Your task to perform on an android device: Go to Amazon Image 0: 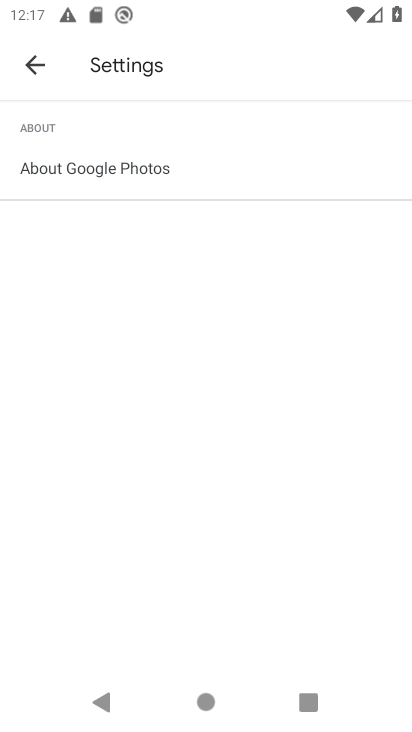
Step 0: press home button
Your task to perform on an android device: Go to Amazon Image 1: 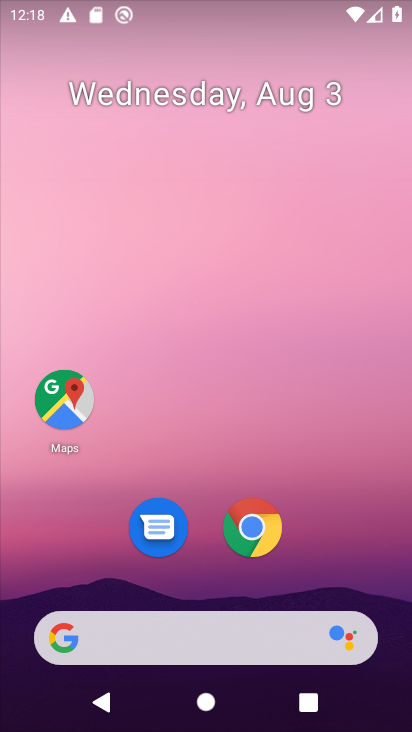
Step 1: click (136, 631)
Your task to perform on an android device: Go to Amazon Image 2: 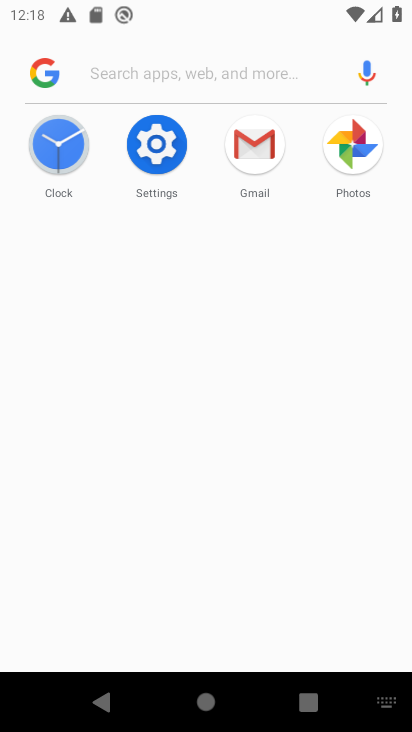
Step 2: type "Amazon"
Your task to perform on an android device: Go to Amazon Image 3: 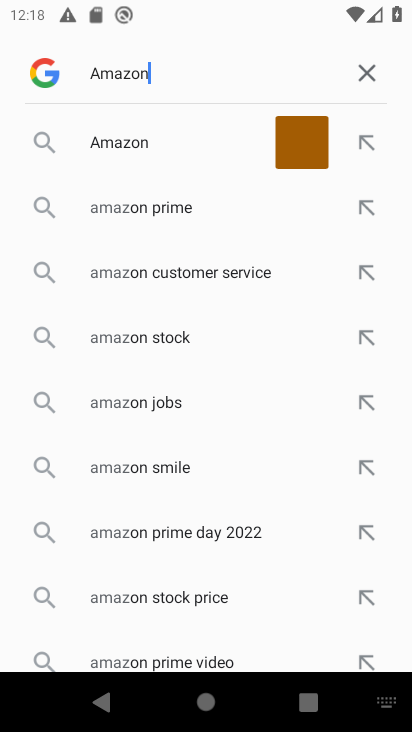
Step 3: type ""
Your task to perform on an android device: Go to Amazon Image 4: 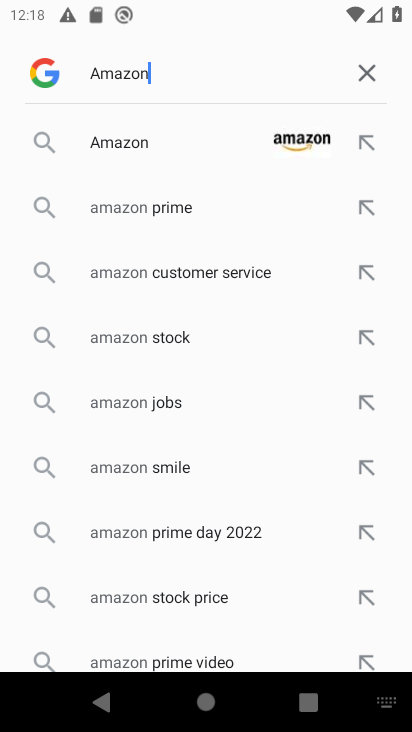
Step 4: click (140, 138)
Your task to perform on an android device: Go to Amazon Image 5: 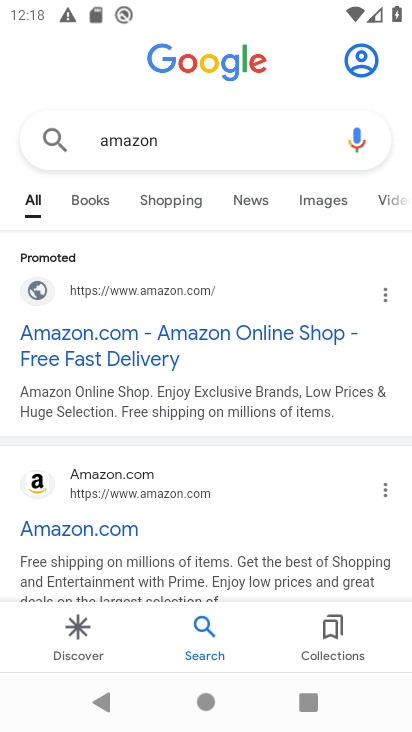
Step 5: task complete